Your task to perform on an android device: Open network settings Image 0: 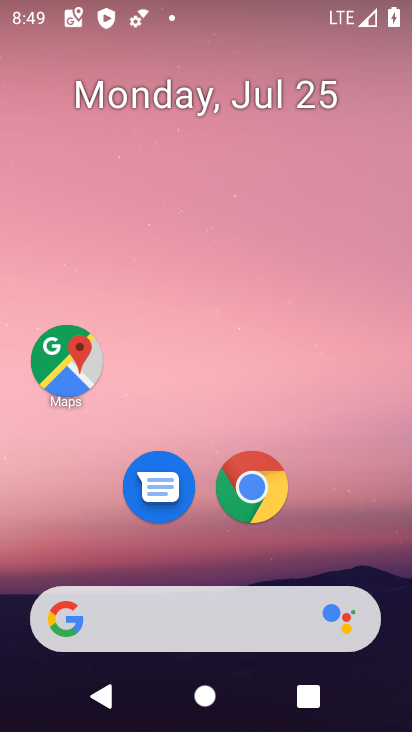
Step 0: drag from (163, 502) to (233, 18)
Your task to perform on an android device: Open network settings Image 1: 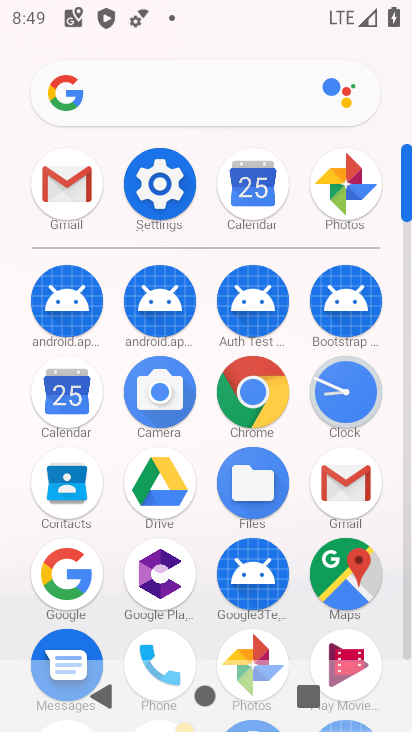
Step 1: click (173, 178)
Your task to perform on an android device: Open network settings Image 2: 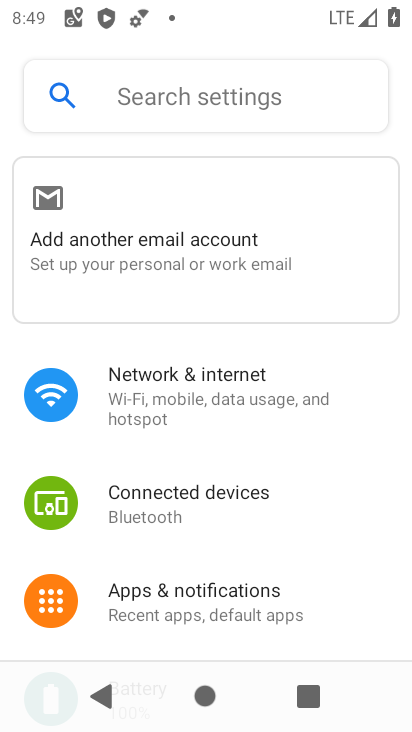
Step 2: click (183, 392)
Your task to perform on an android device: Open network settings Image 3: 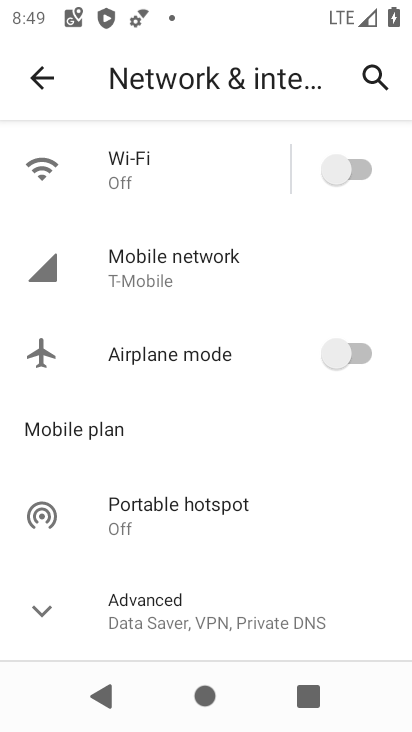
Step 3: task complete